Your task to perform on an android device: toggle improve location accuracy Image 0: 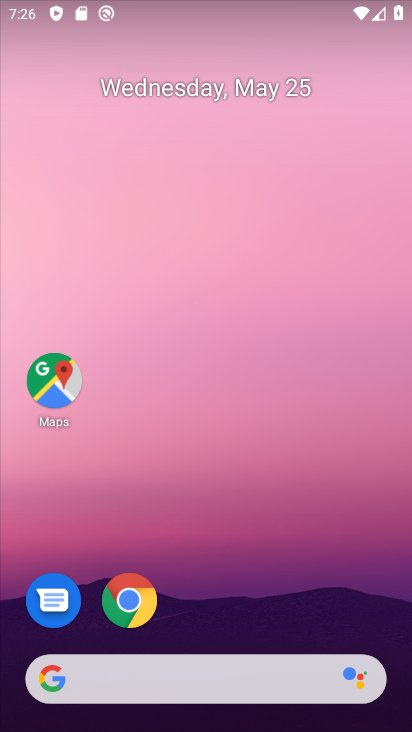
Step 0: drag from (362, 588) to (323, 156)
Your task to perform on an android device: toggle improve location accuracy Image 1: 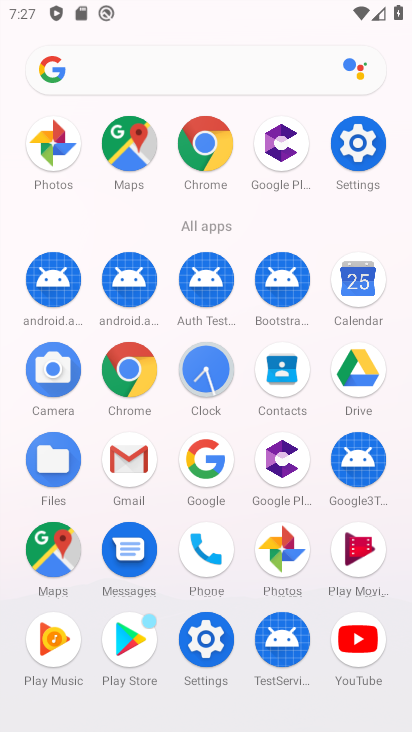
Step 1: click (374, 137)
Your task to perform on an android device: toggle improve location accuracy Image 2: 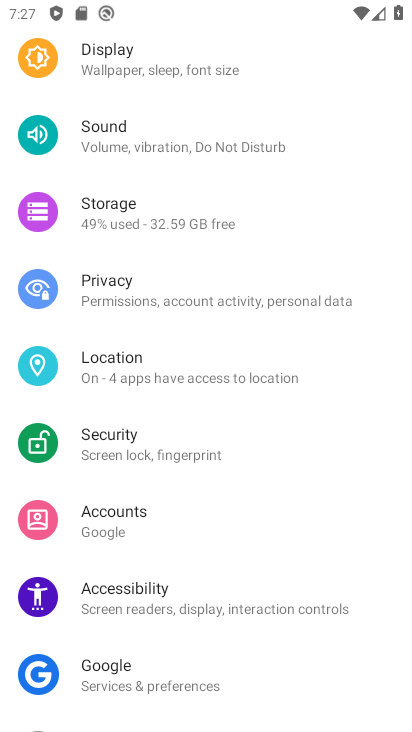
Step 2: drag from (335, 576) to (293, 205)
Your task to perform on an android device: toggle improve location accuracy Image 3: 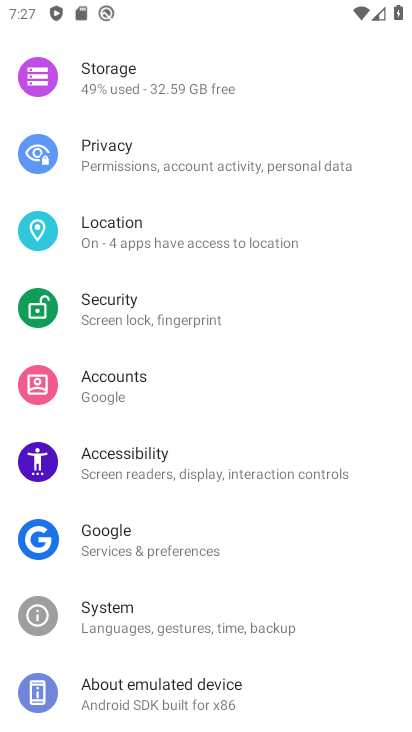
Step 3: click (136, 238)
Your task to perform on an android device: toggle improve location accuracy Image 4: 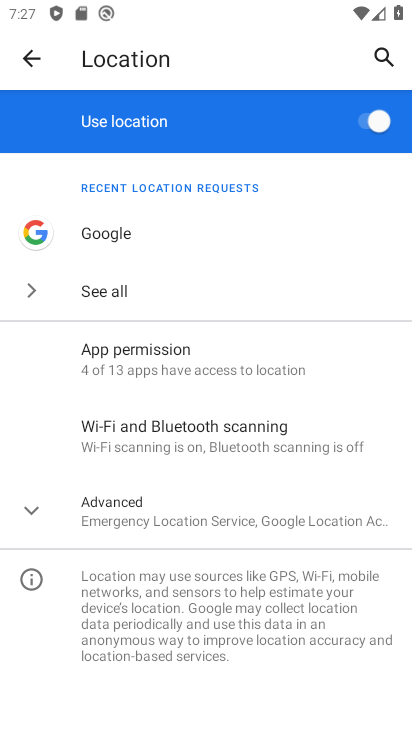
Step 4: click (217, 523)
Your task to perform on an android device: toggle improve location accuracy Image 5: 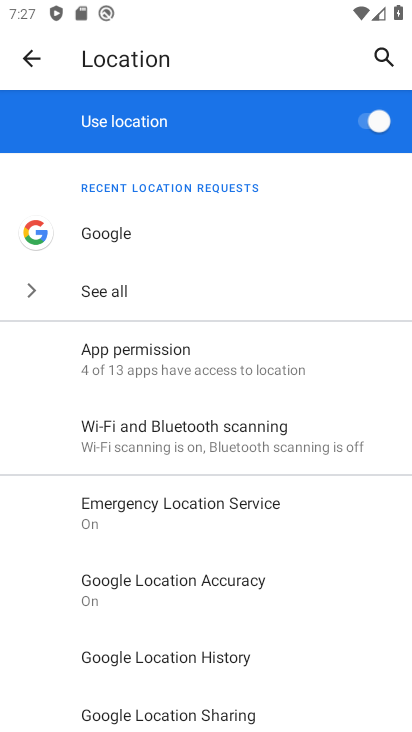
Step 5: click (184, 575)
Your task to perform on an android device: toggle improve location accuracy Image 6: 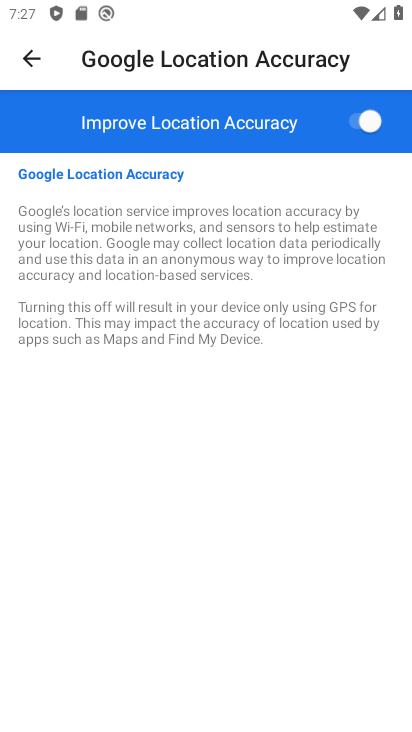
Step 6: click (358, 119)
Your task to perform on an android device: toggle improve location accuracy Image 7: 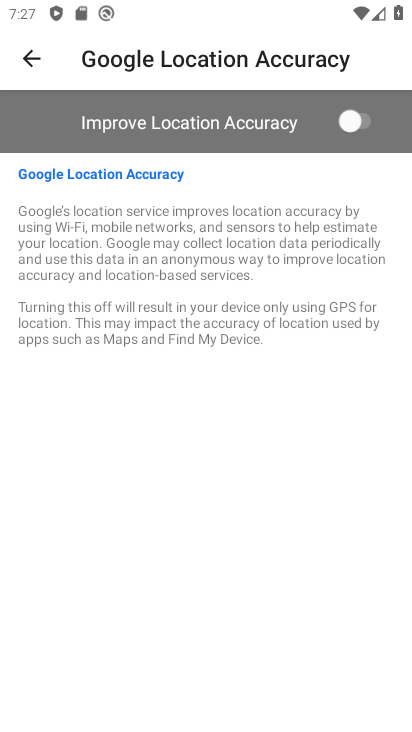
Step 7: task complete